Your task to perform on an android device: Open accessibility settings Image 0: 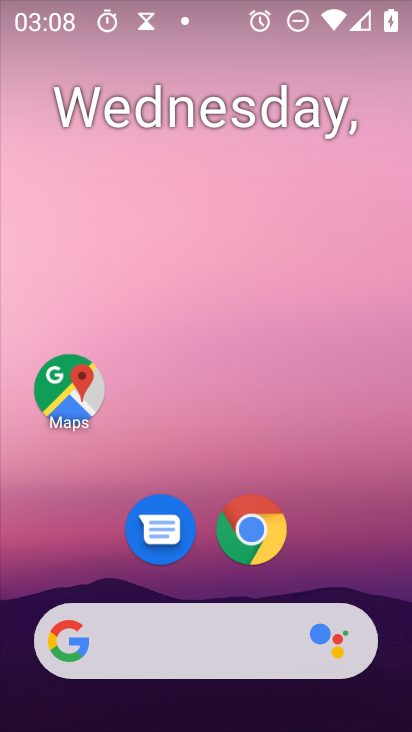
Step 0: drag from (278, 621) to (306, 76)
Your task to perform on an android device: Open accessibility settings Image 1: 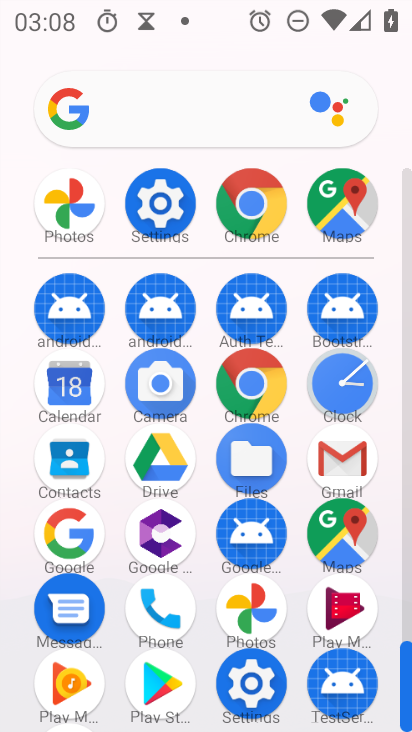
Step 1: click (167, 192)
Your task to perform on an android device: Open accessibility settings Image 2: 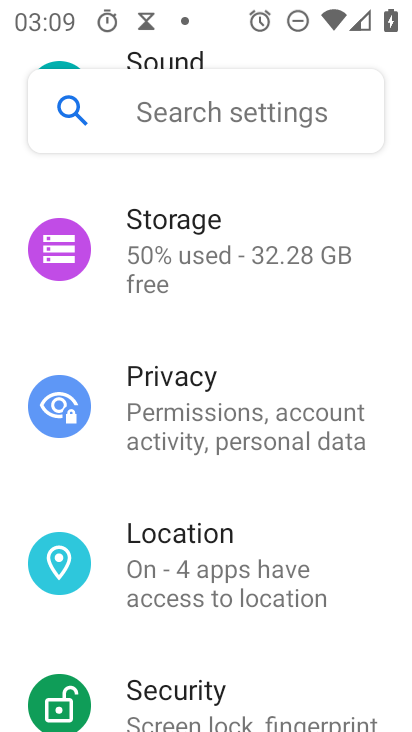
Step 2: drag from (233, 640) to (255, 138)
Your task to perform on an android device: Open accessibility settings Image 3: 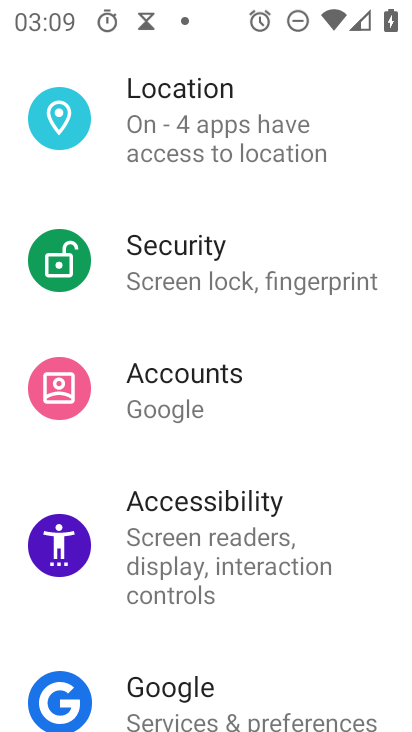
Step 3: click (240, 537)
Your task to perform on an android device: Open accessibility settings Image 4: 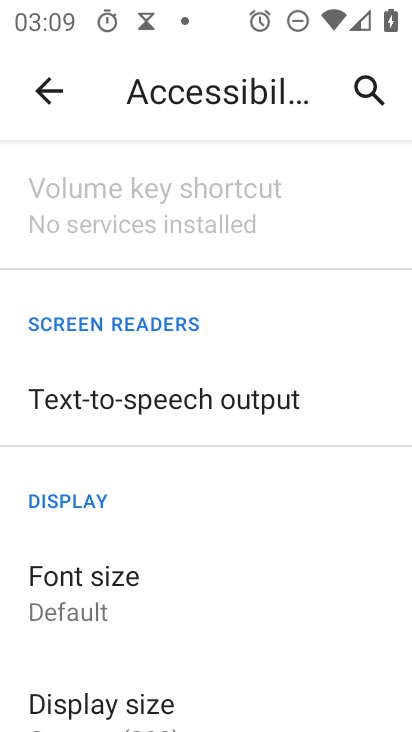
Step 4: task complete